Your task to perform on an android device: see sites visited before in the chrome app Image 0: 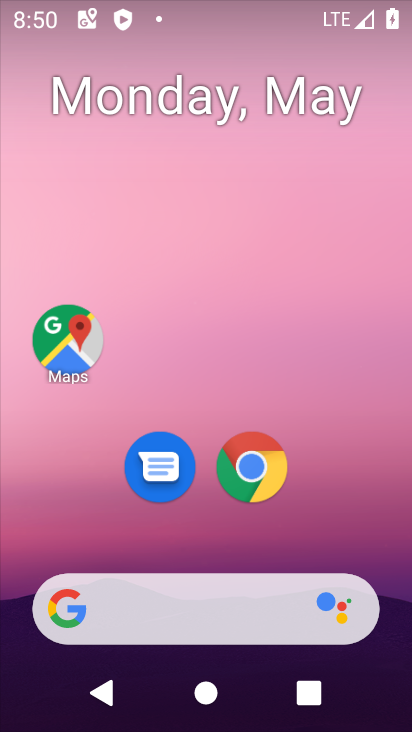
Step 0: click (271, 461)
Your task to perform on an android device: see sites visited before in the chrome app Image 1: 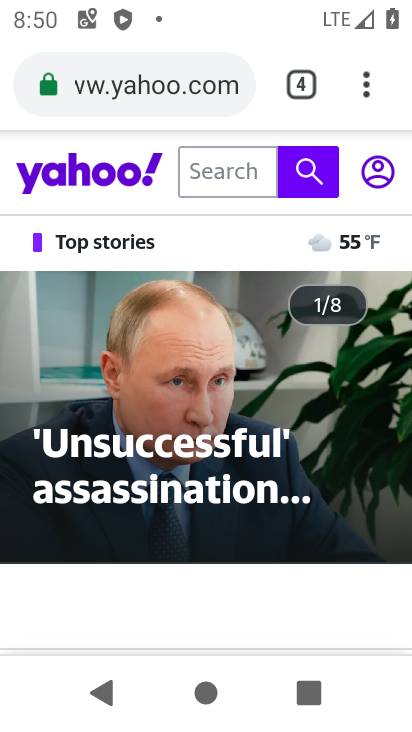
Step 1: click (370, 76)
Your task to perform on an android device: see sites visited before in the chrome app Image 2: 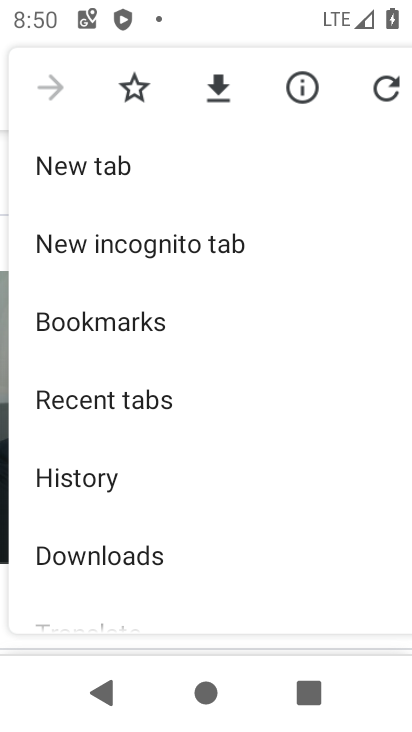
Step 2: drag from (288, 565) to (249, 205)
Your task to perform on an android device: see sites visited before in the chrome app Image 3: 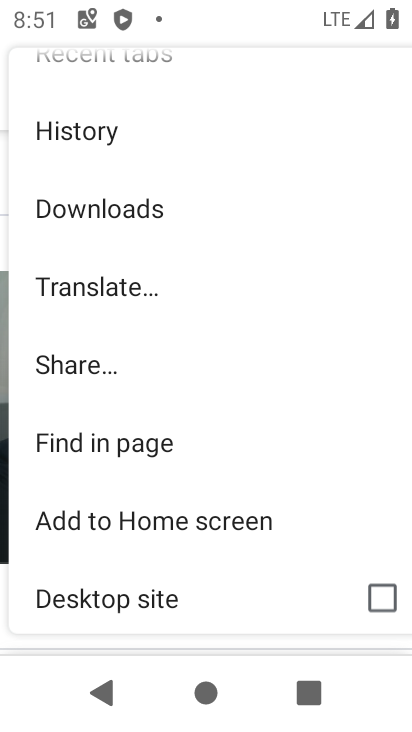
Step 3: click (140, 118)
Your task to perform on an android device: see sites visited before in the chrome app Image 4: 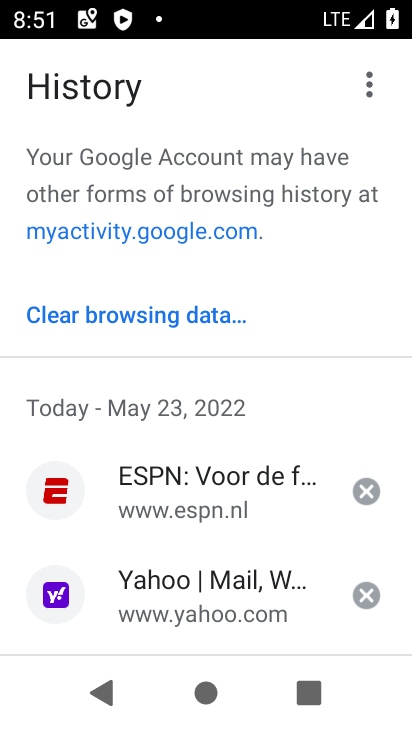
Step 4: task complete